Your task to perform on an android device: set default search engine in the chrome app Image 0: 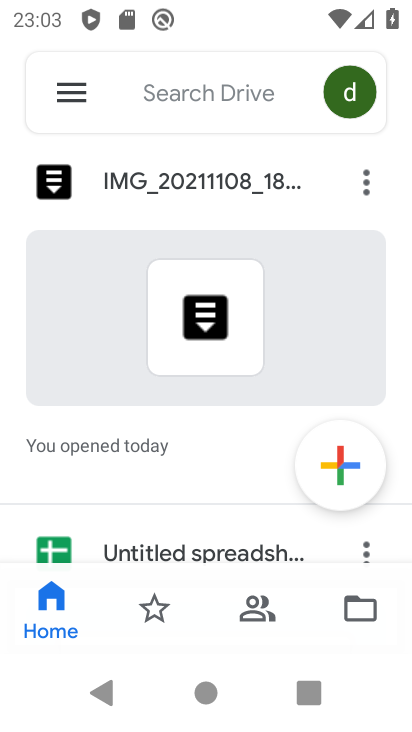
Step 0: press home button
Your task to perform on an android device: set default search engine in the chrome app Image 1: 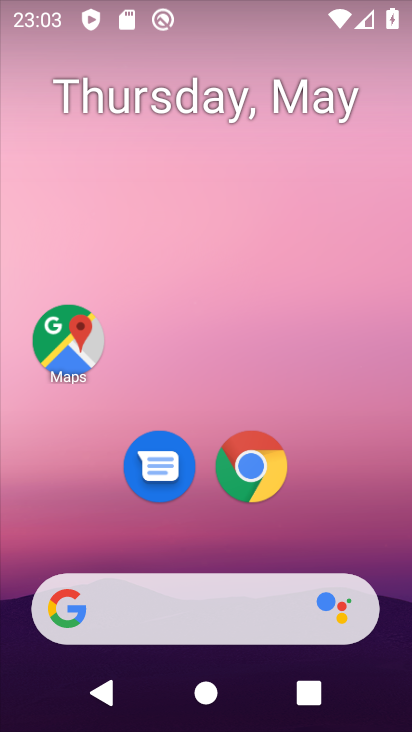
Step 1: click (271, 474)
Your task to perform on an android device: set default search engine in the chrome app Image 2: 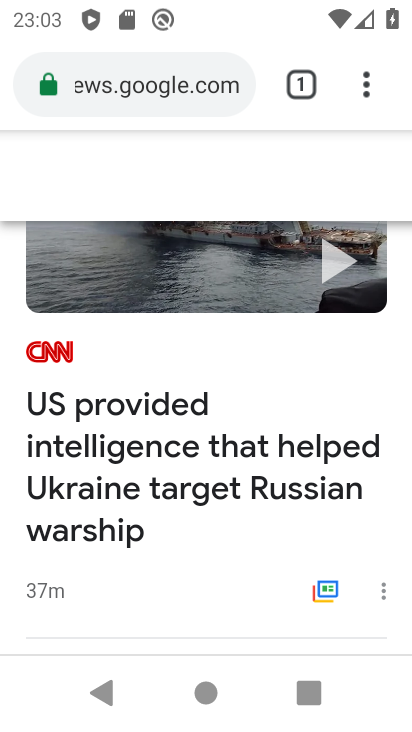
Step 2: drag from (368, 79) to (199, 521)
Your task to perform on an android device: set default search engine in the chrome app Image 3: 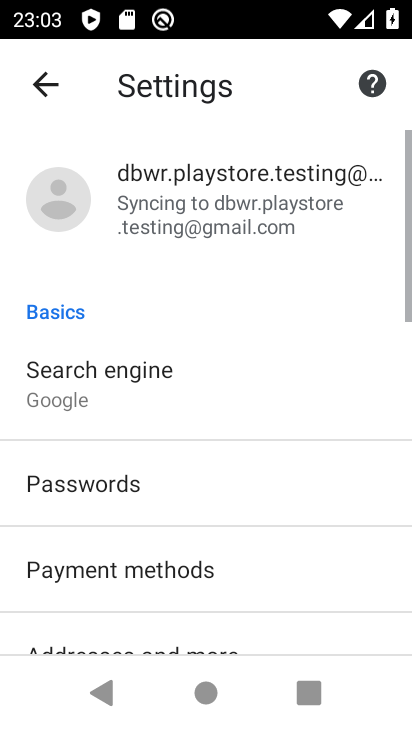
Step 3: click (106, 366)
Your task to perform on an android device: set default search engine in the chrome app Image 4: 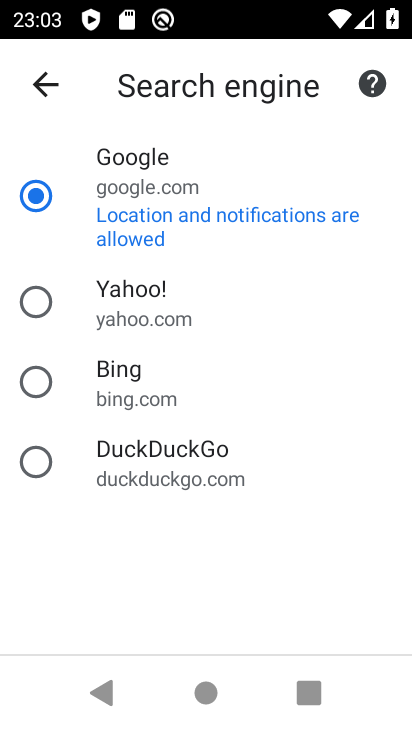
Step 4: task complete